Your task to perform on an android device: move an email to a new category in the gmail app Image 0: 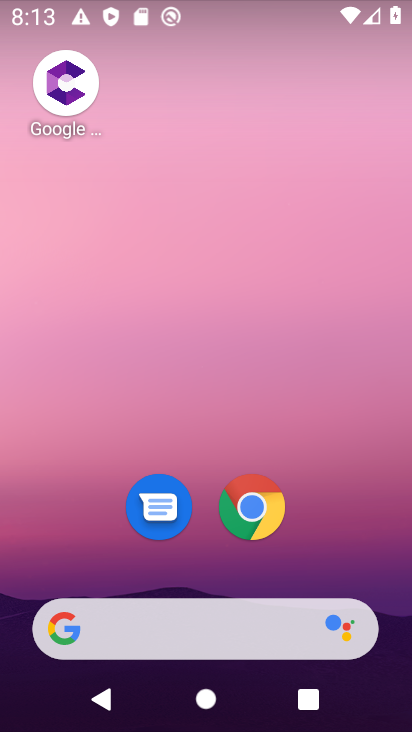
Step 0: drag from (71, 662) to (195, 86)
Your task to perform on an android device: move an email to a new category in the gmail app Image 1: 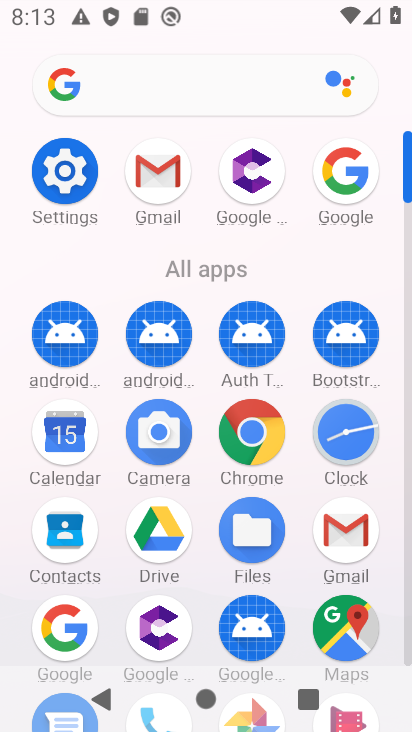
Step 1: click (139, 171)
Your task to perform on an android device: move an email to a new category in the gmail app Image 2: 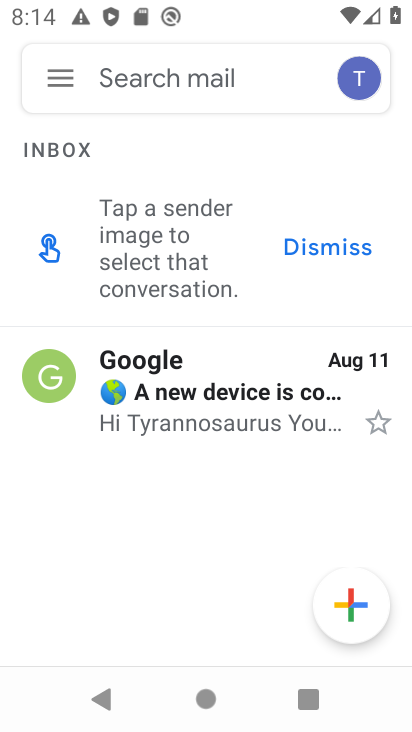
Step 2: click (367, 433)
Your task to perform on an android device: move an email to a new category in the gmail app Image 3: 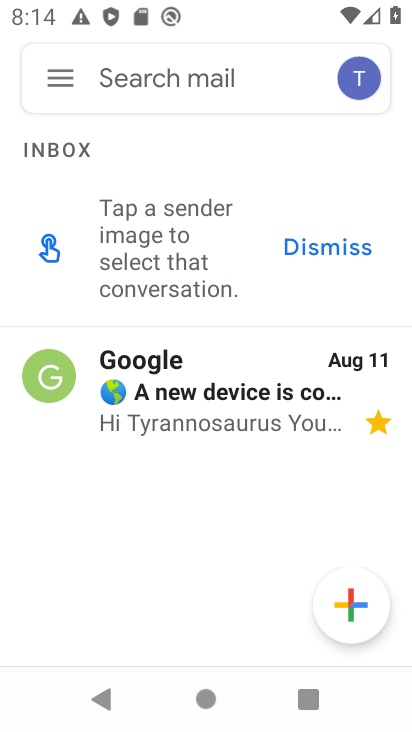
Step 3: task complete